Your task to perform on an android device: uninstall "Cash App" Image 0: 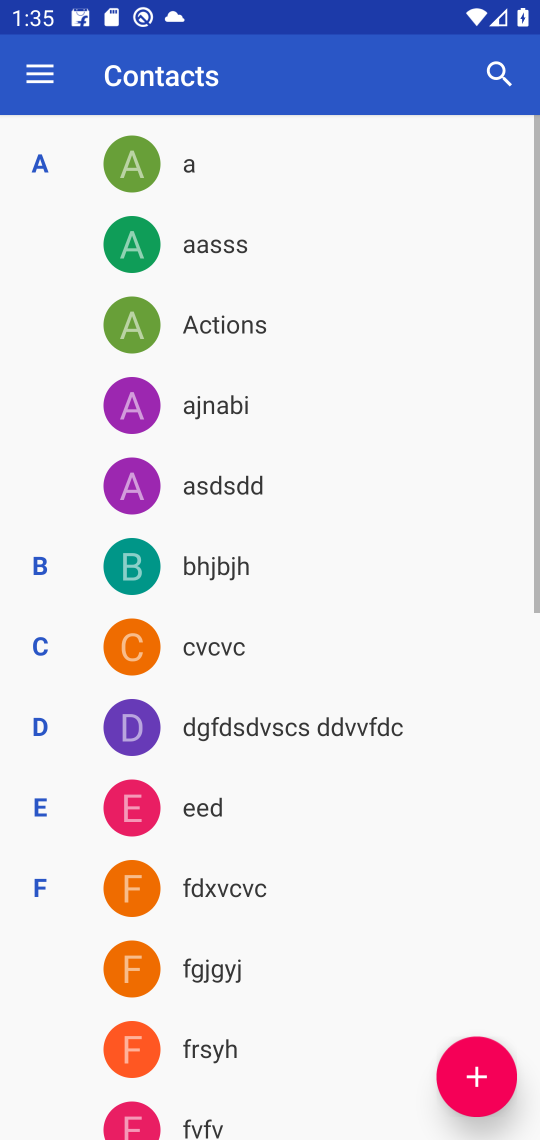
Step 0: press home button
Your task to perform on an android device: uninstall "Cash App" Image 1: 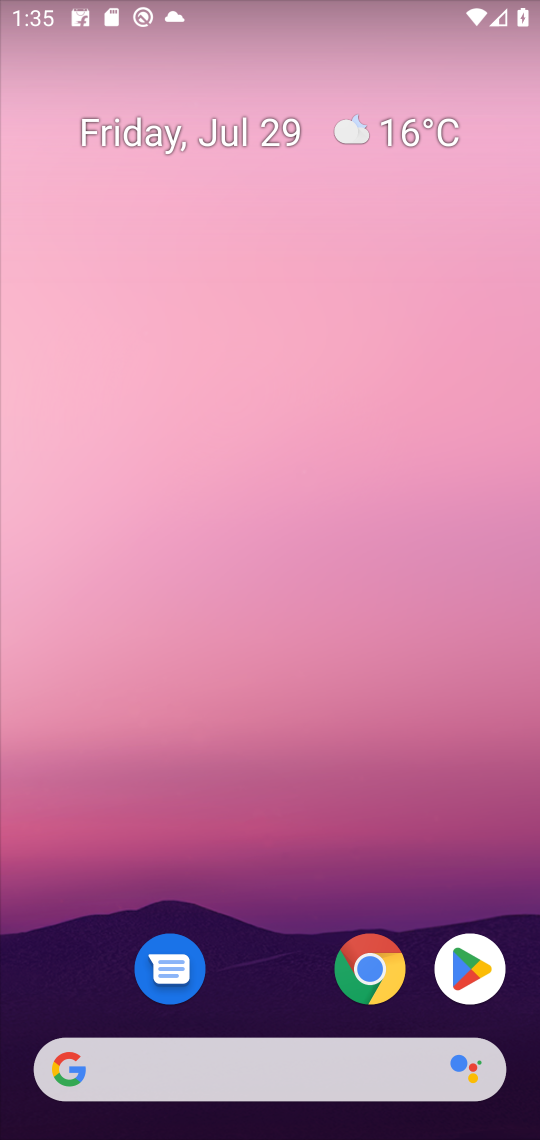
Step 1: click (463, 984)
Your task to perform on an android device: uninstall "Cash App" Image 2: 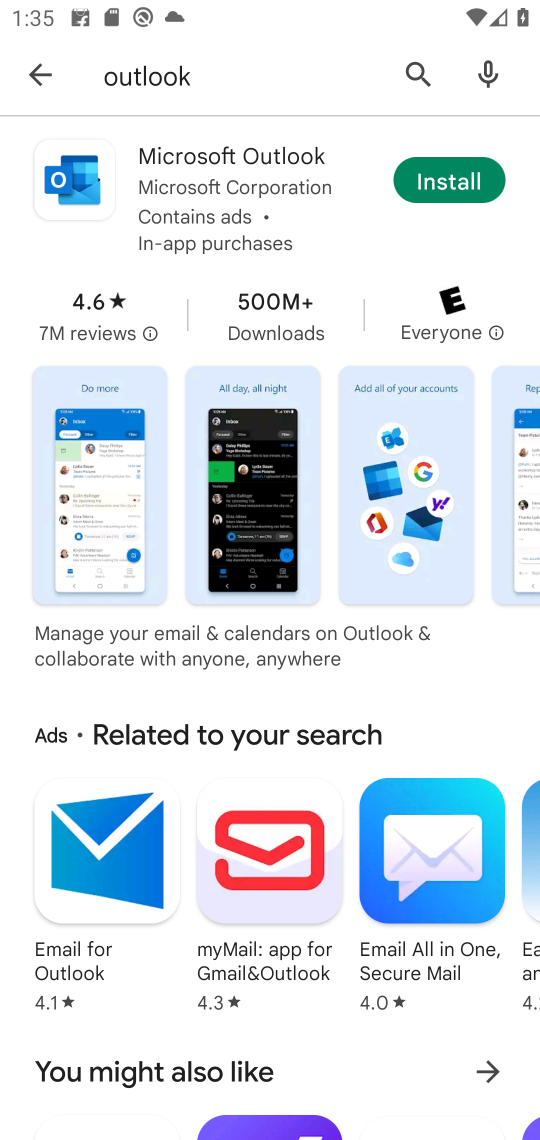
Step 2: click (409, 71)
Your task to perform on an android device: uninstall "Cash App" Image 3: 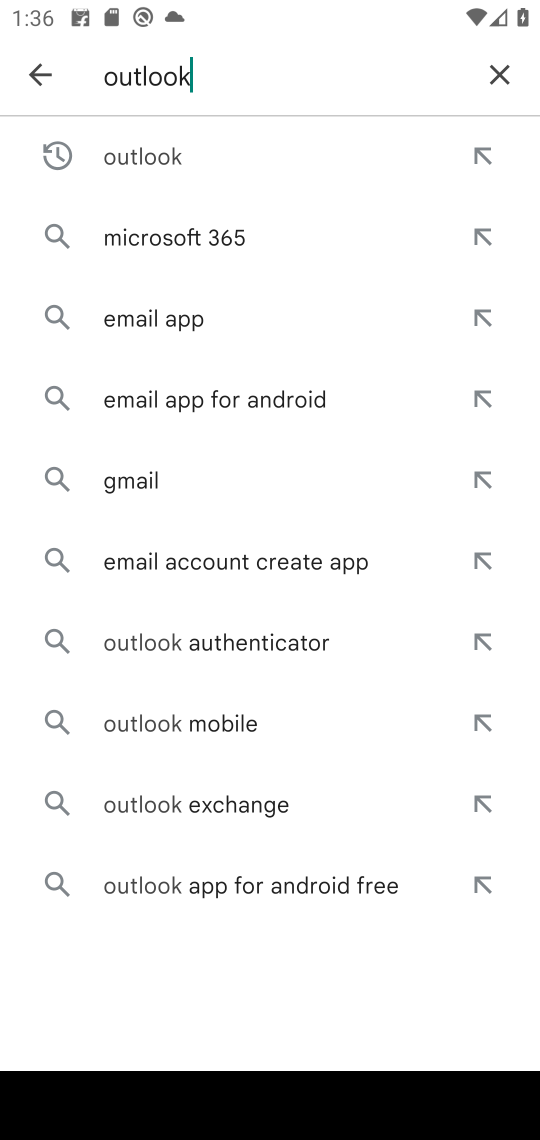
Step 3: click (488, 82)
Your task to perform on an android device: uninstall "Cash App" Image 4: 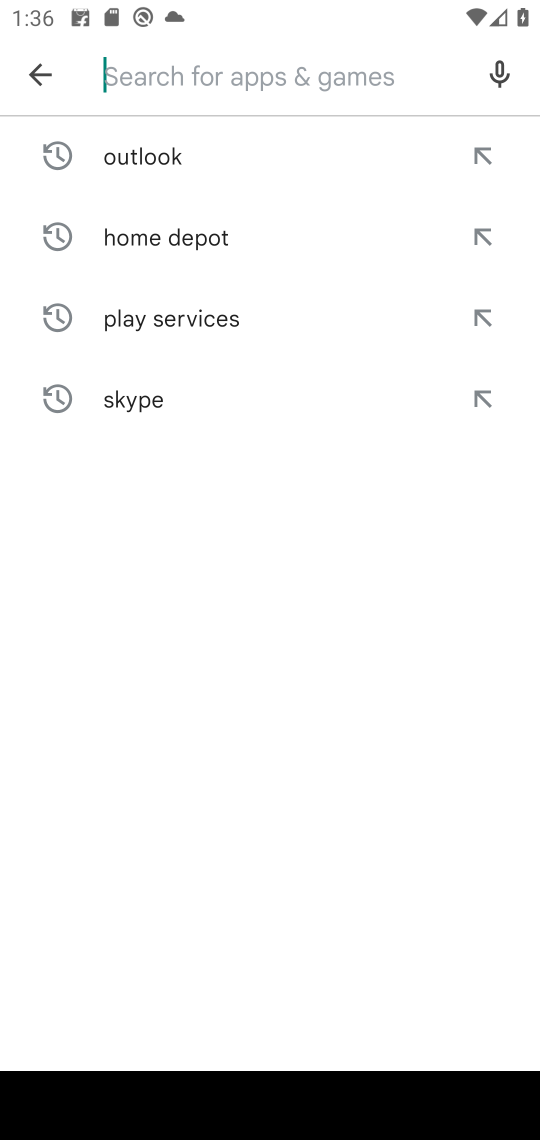
Step 4: type "cash app"
Your task to perform on an android device: uninstall "Cash App" Image 5: 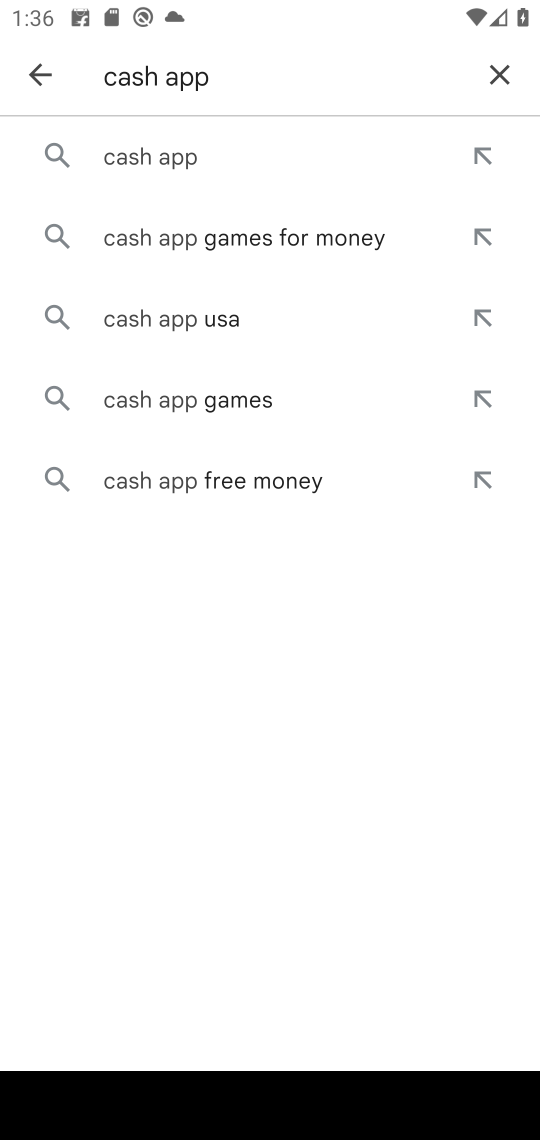
Step 5: click (143, 170)
Your task to perform on an android device: uninstall "Cash App" Image 6: 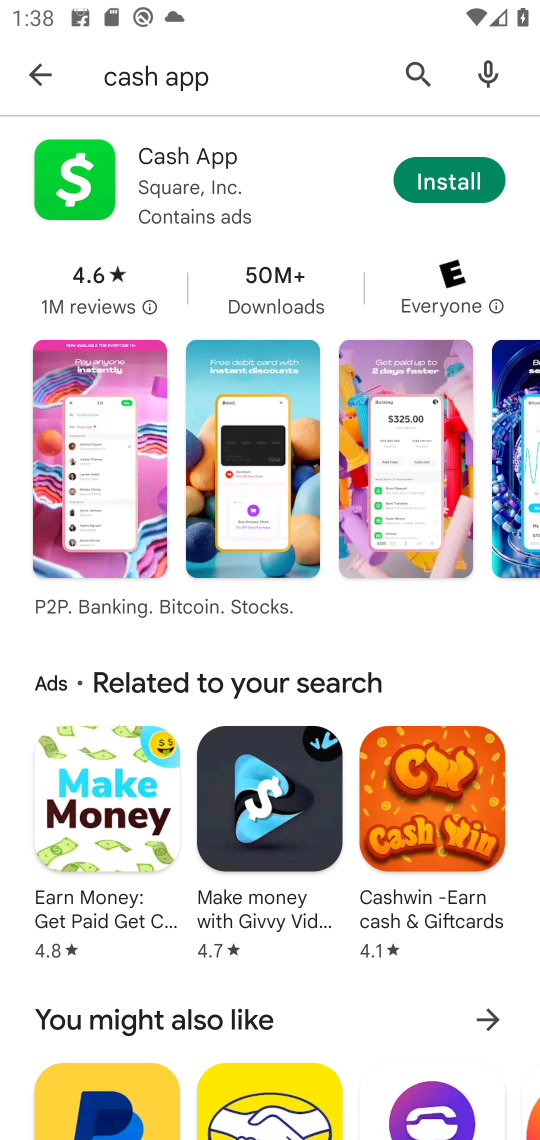
Step 6: task complete